Your task to perform on an android device: Open Yahoo.com Image 0: 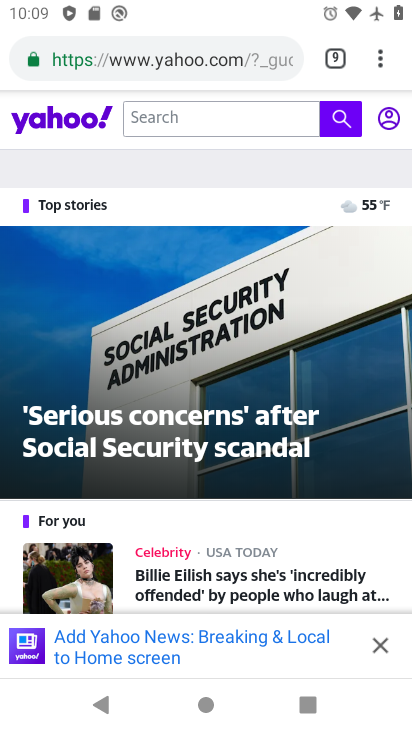
Step 0: task complete